Your task to perform on an android device: turn off picture-in-picture Image 0: 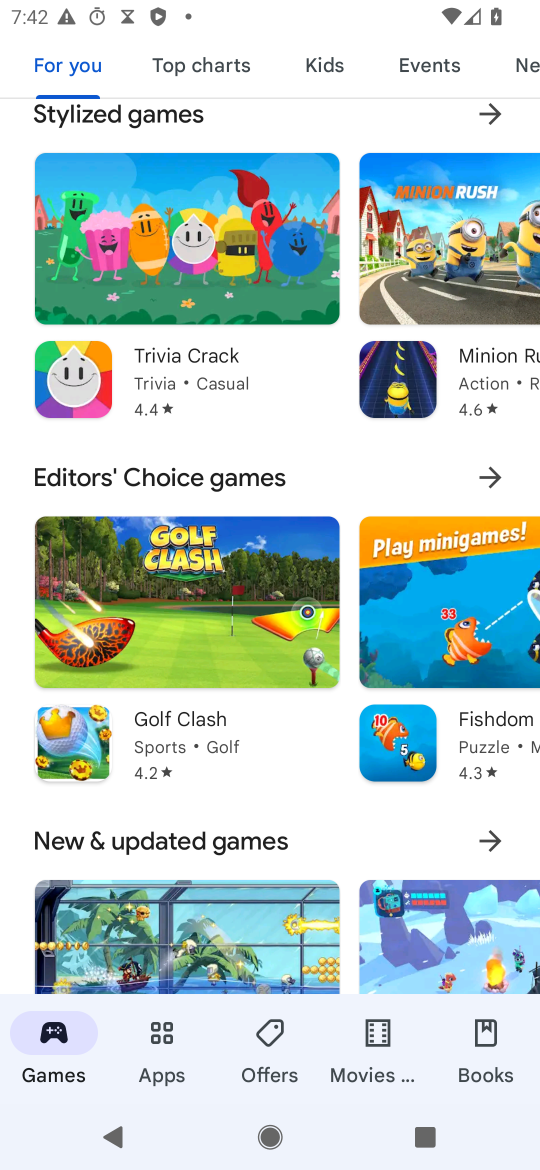
Step 0: press home button
Your task to perform on an android device: turn off picture-in-picture Image 1: 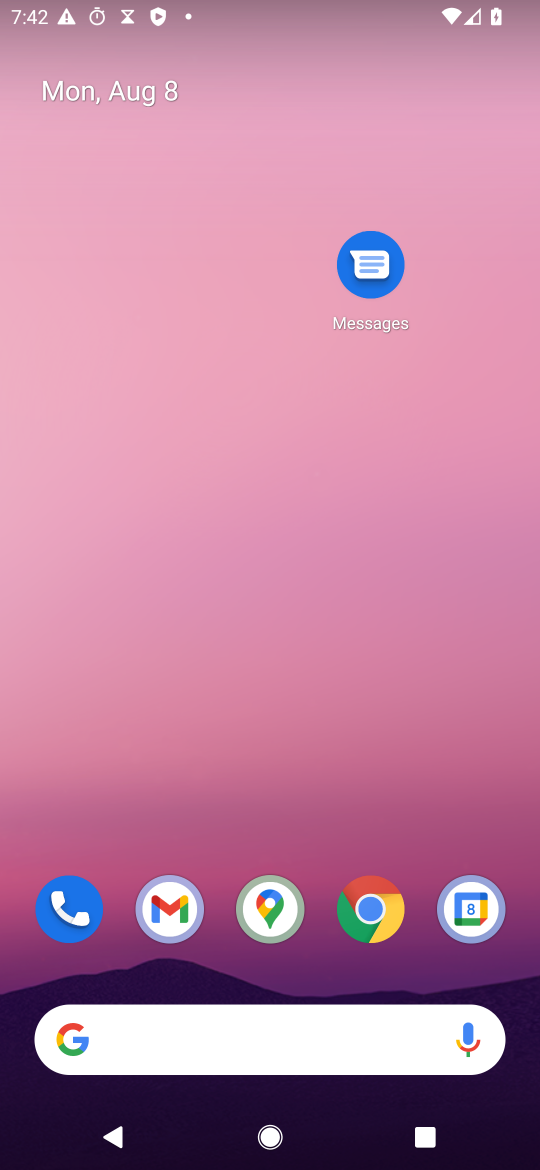
Step 1: click (369, 913)
Your task to perform on an android device: turn off picture-in-picture Image 2: 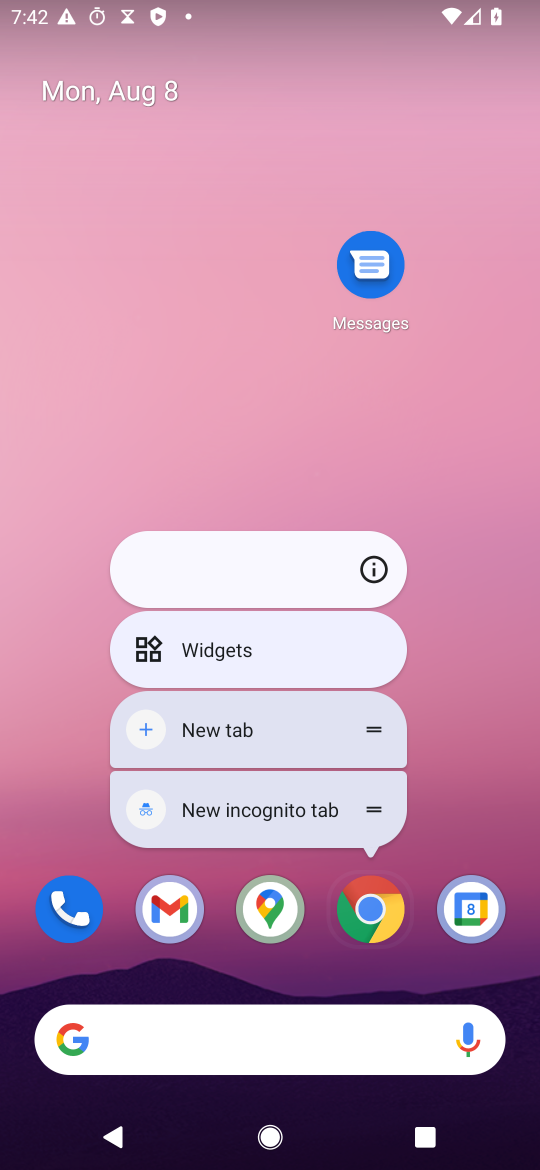
Step 2: click (369, 569)
Your task to perform on an android device: turn off picture-in-picture Image 3: 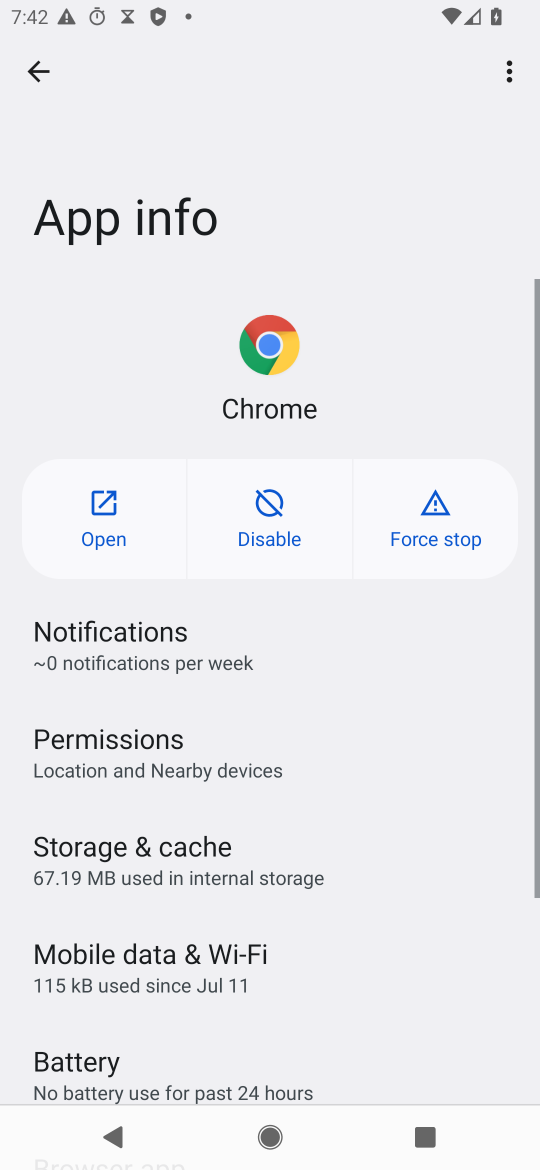
Step 3: drag from (322, 1044) to (530, 147)
Your task to perform on an android device: turn off picture-in-picture Image 4: 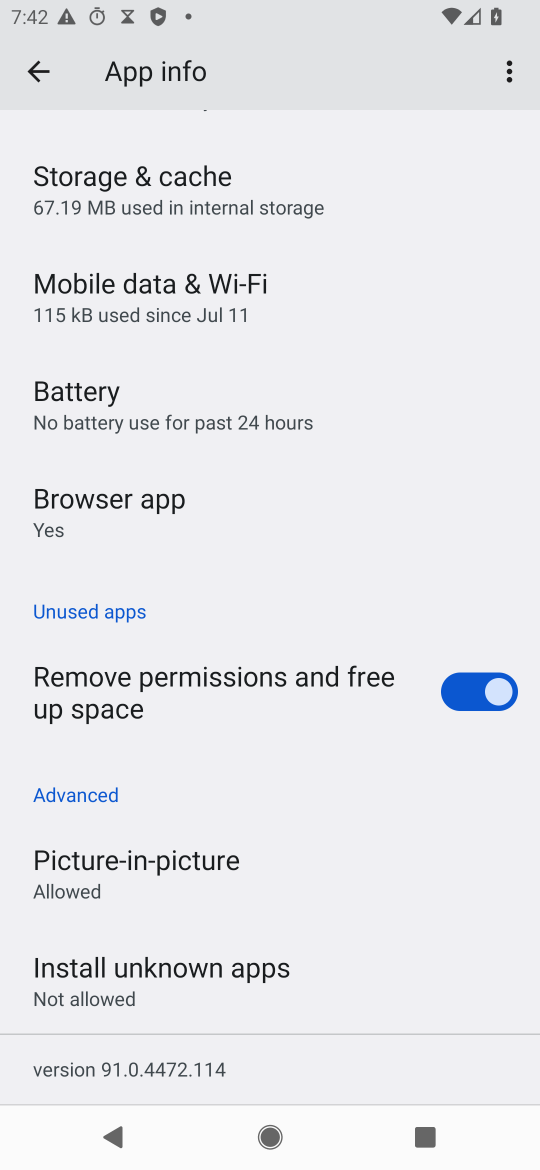
Step 4: click (142, 865)
Your task to perform on an android device: turn off picture-in-picture Image 5: 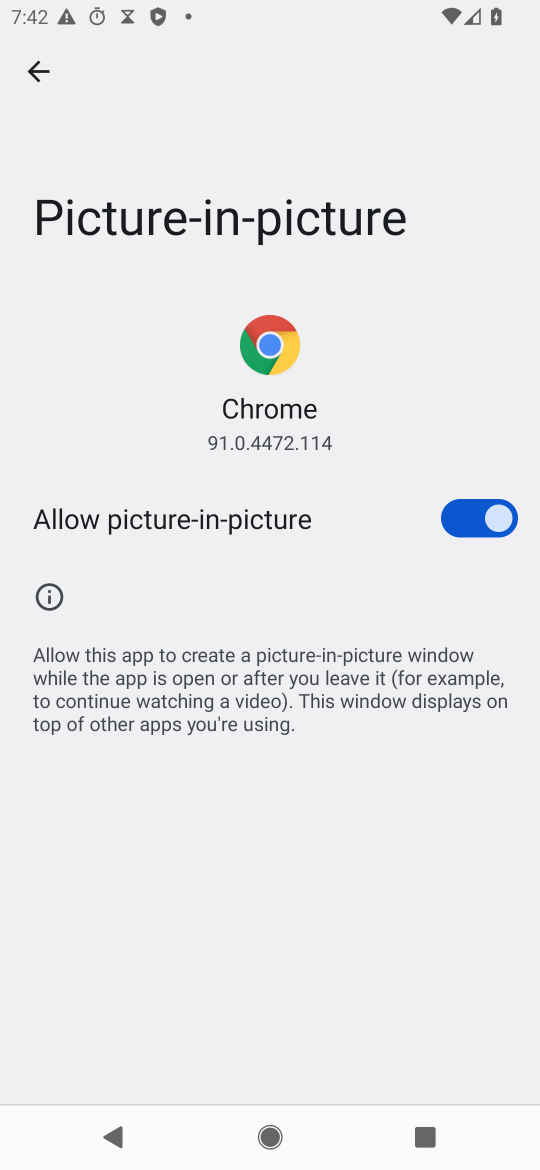
Step 5: click (479, 512)
Your task to perform on an android device: turn off picture-in-picture Image 6: 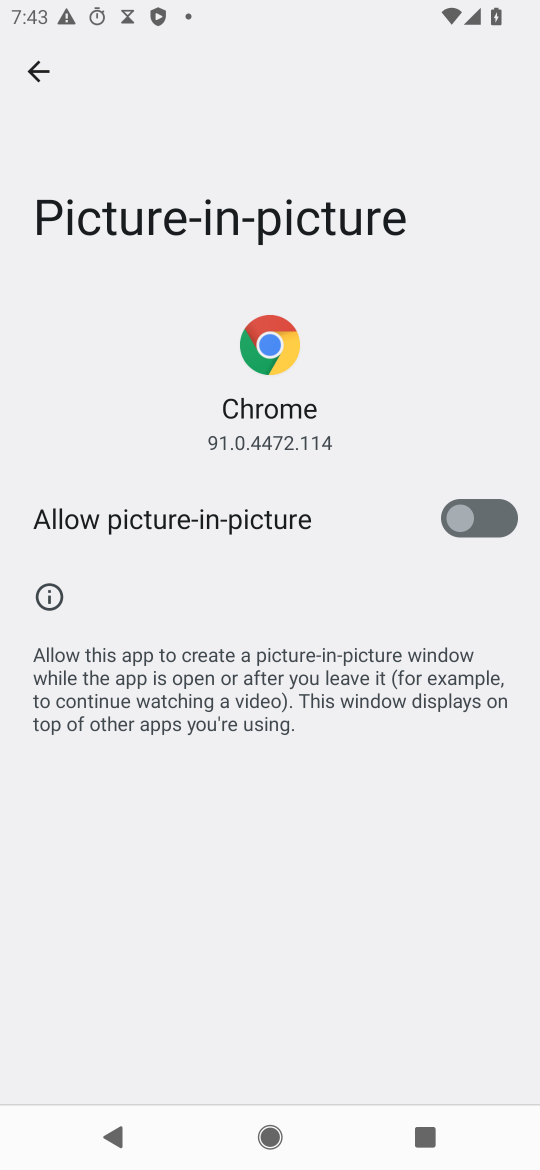
Step 6: task complete